Your task to perform on an android device: choose inbox layout in the gmail app Image 0: 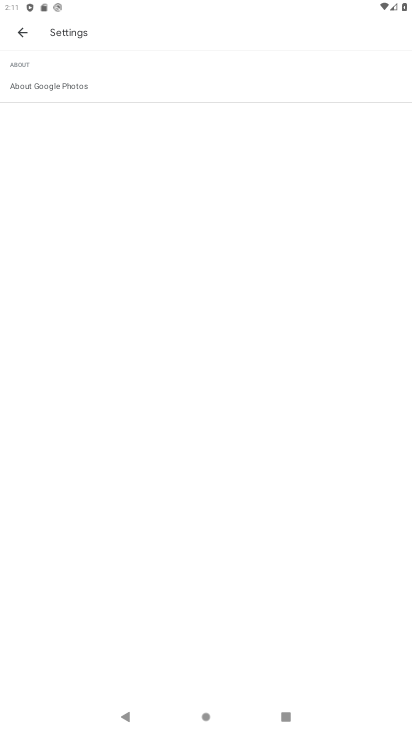
Step 0: press home button
Your task to perform on an android device: choose inbox layout in the gmail app Image 1: 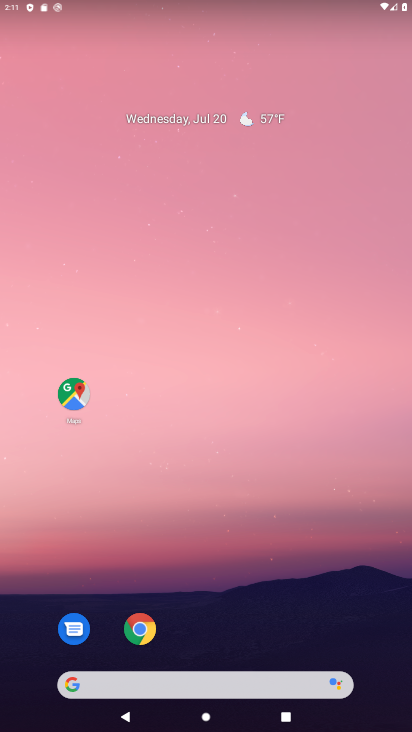
Step 1: drag from (210, 545) to (212, 209)
Your task to perform on an android device: choose inbox layout in the gmail app Image 2: 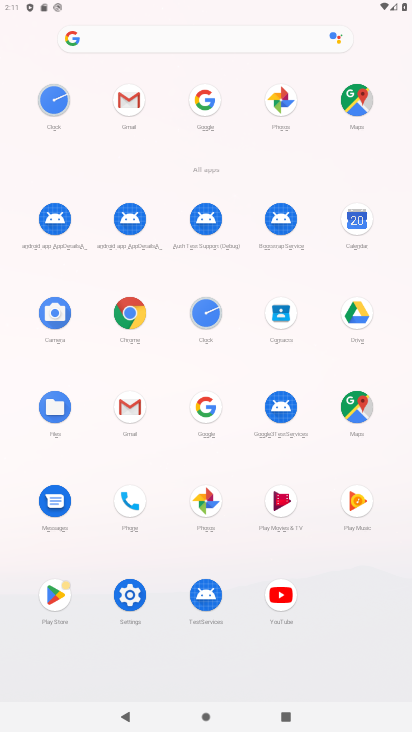
Step 2: click (119, 116)
Your task to perform on an android device: choose inbox layout in the gmail app Image 3: 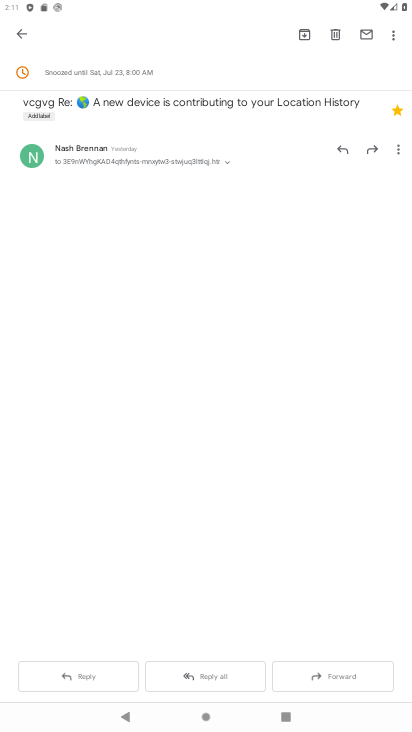
Step 3: click (28, 38)
Your task to perform on an android device: choose inbox layout in the gmail app Image 4: 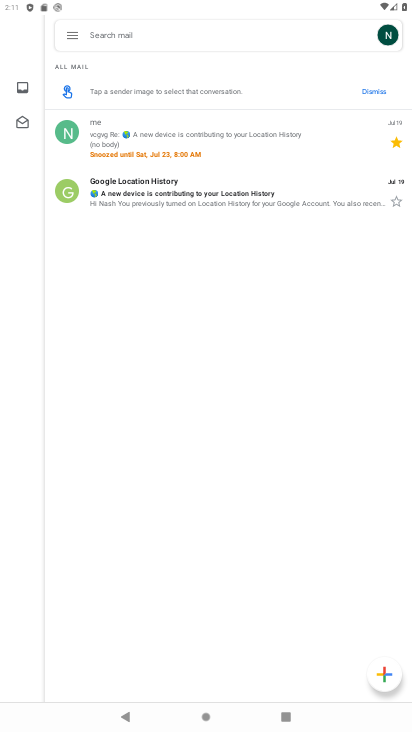
Step 4: click (65, 40)
Your task to perform on an android device: choose inbox layout in the gmail app Image 5: 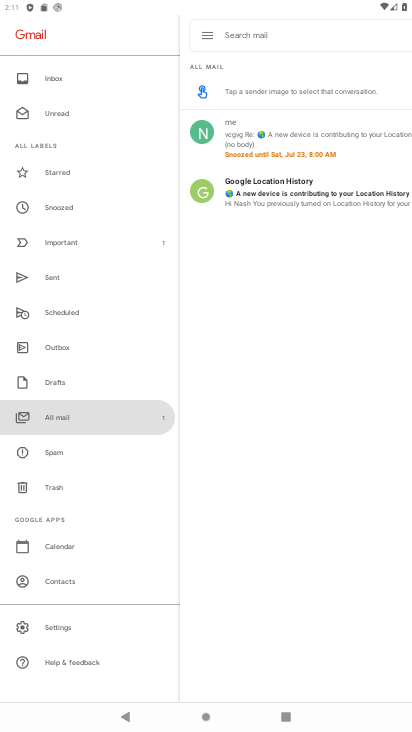
Step 5: click (78, 621)
Your task to perform on an android device: choose inbox layout in the gmail app Image 6: 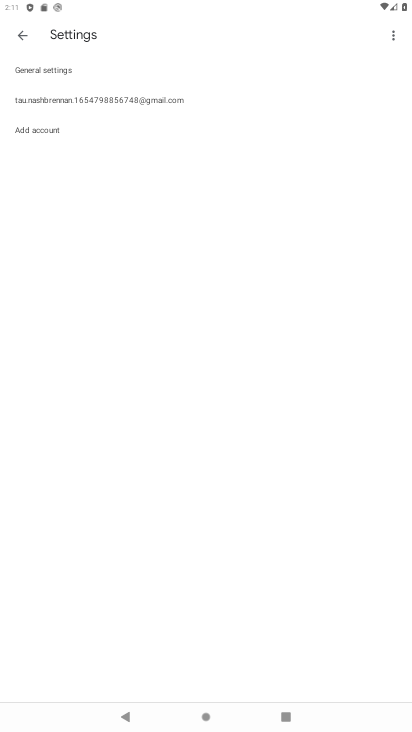
Step 6: click (123, 94)
Your task to perform on an android device: choose inbox layout in the gmail app Image 7: 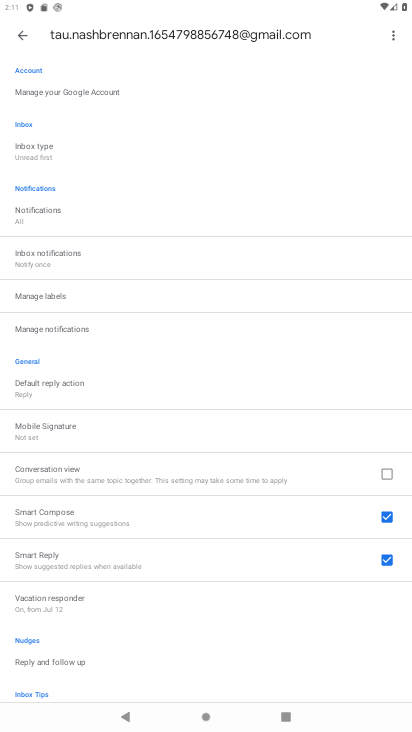
Step 7: click (59, 159)
Your task to perform on an android device: choose inbox layout in the gmail app Image 8: 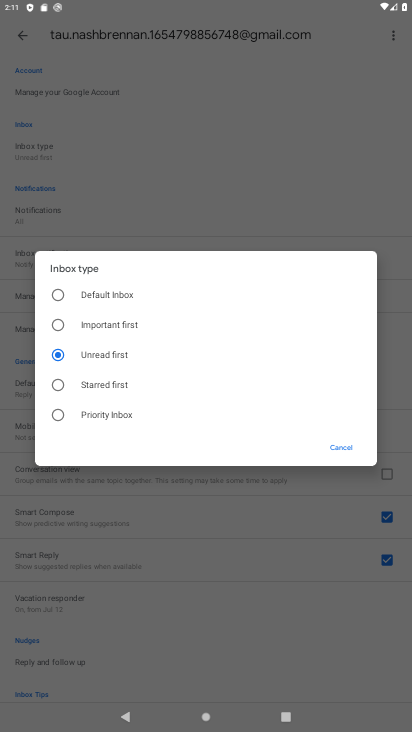
Step 8: click (90, 299)
Your task to perform on an android device: choose inbox layout in the gmail app Image 9: 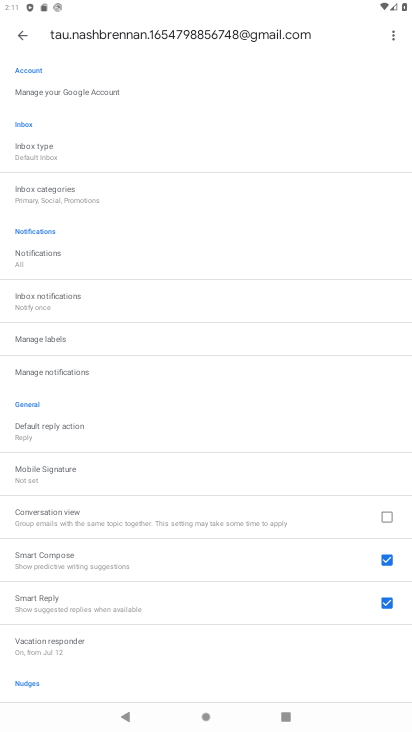
Step 9: task complete